Your task to perform on an android device: What's the weather going to be this weekend? Image 0: 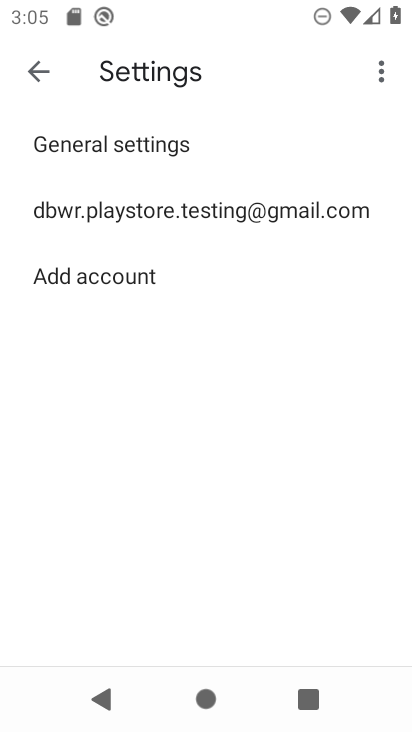
Step 0: press home button
Your task to perform on an android device: What's the weather going to be this weekend? Image 1: 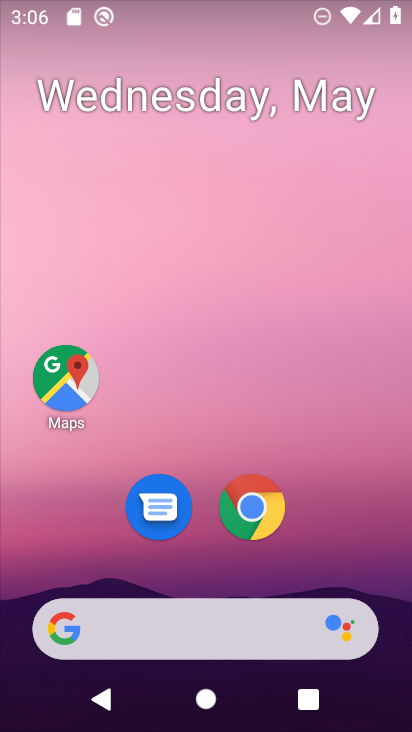
Step 1: click (183, 630)
Your task to perform on an android device: What's the weather going to be this weekend? Image 2: 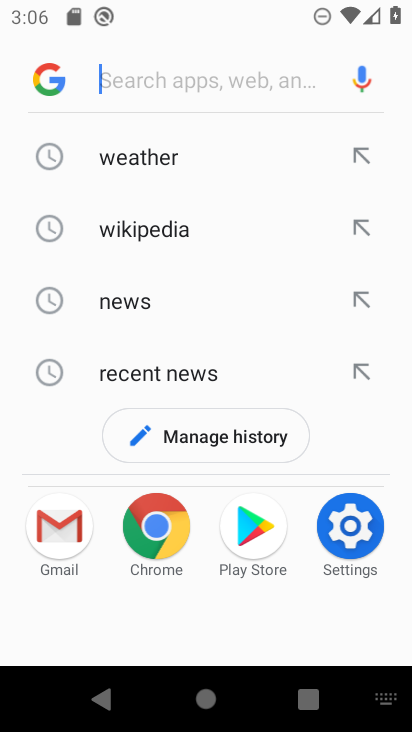
Step 2: click (139, 157)
Your task to perform on an android device: What's the weather going to be this weekend? Image 3: 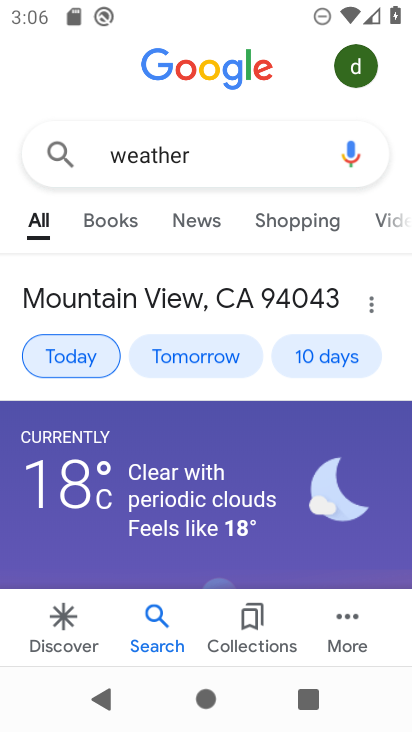
Step 3: click (311, 362)
Your task to perform on an android device: What's the weather going to be this weekend? Image 4: 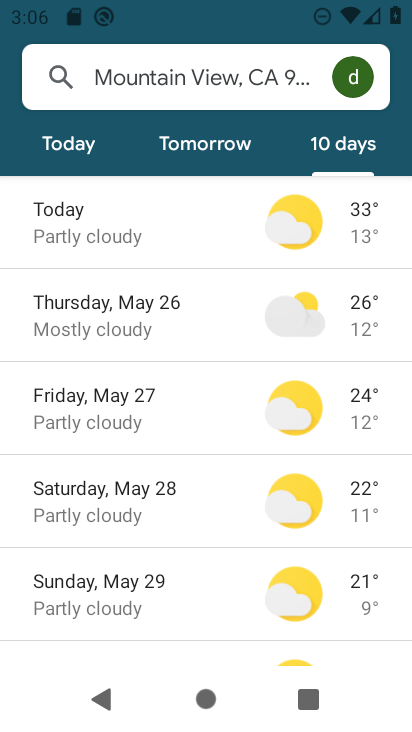
Step 4: task complete